Your task to perform on an android device: Open Google Chrome Image 0: 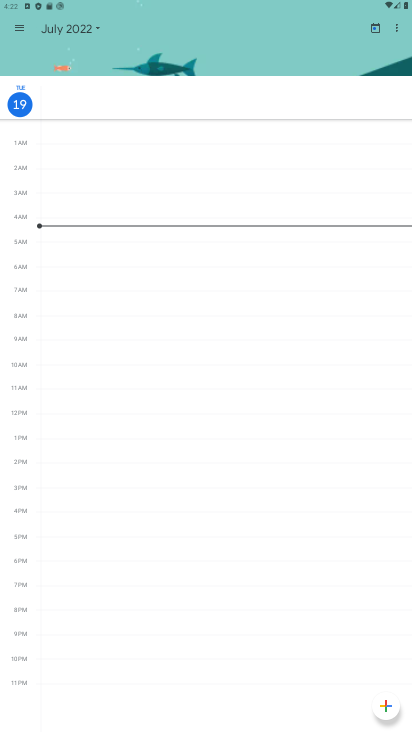
Step 0: press home button
Your task to perform on an android device: Open Google Chrome Image 1: 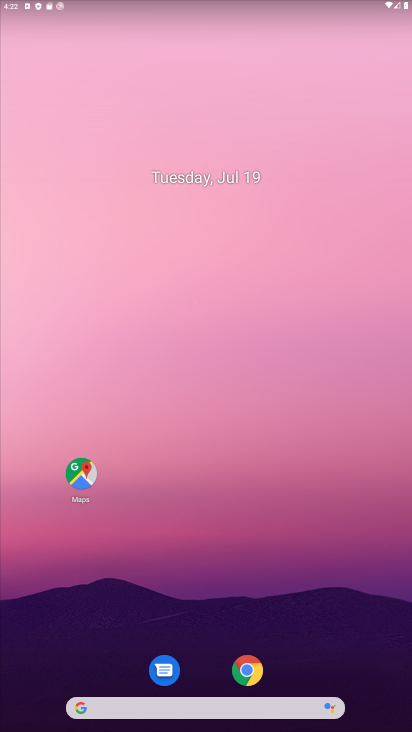
Step 1: drag from (150, 699) to (276, 57)
Your task to perform on an android device: Open Google Chrome Image 2: 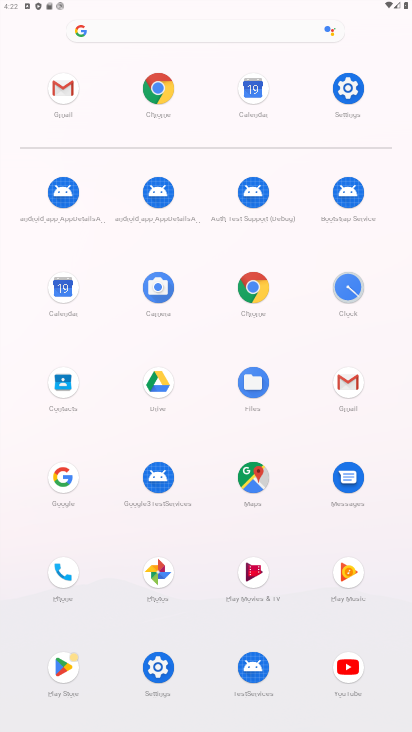
Step 2: click (258, 296)
Your task to perform on an android device: Open Google Chrome Image 3: 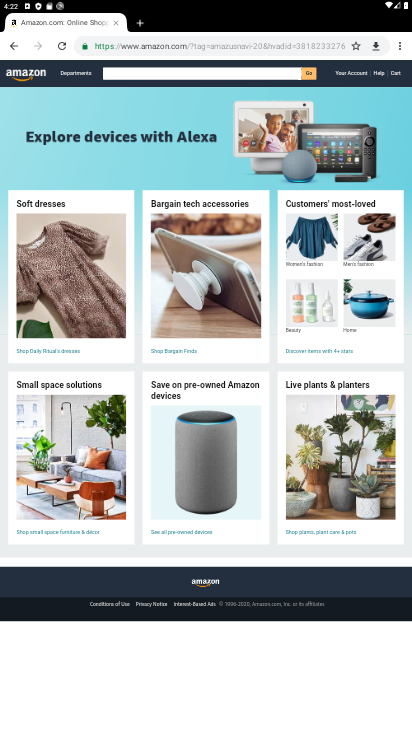
Step 3: click (402, 44)
Your task to perform on an android device: Open Google Chrome Image 4: 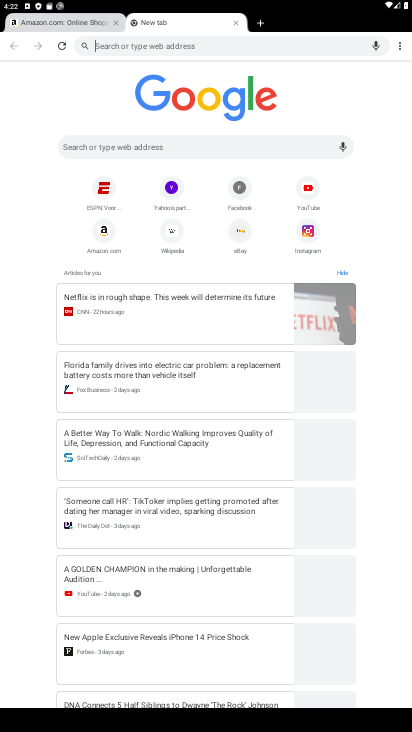
Step 4: click (396, 46)
Your task to perform on an android device: Open Google Chrome Image 5: 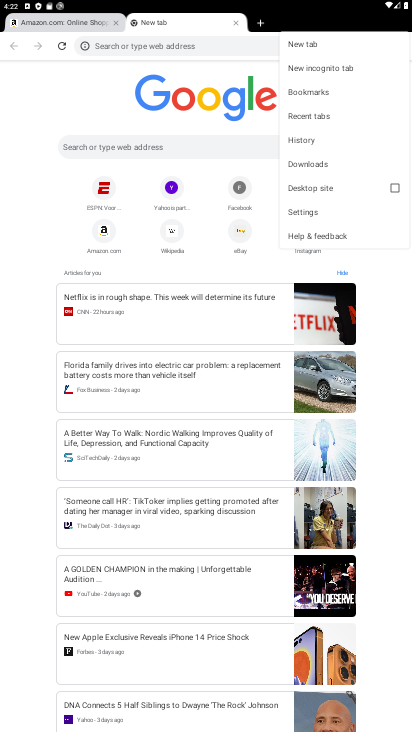
Step 5: click (338, 45)
Your task to perform on an android device: Open Google Chrome Image 6: 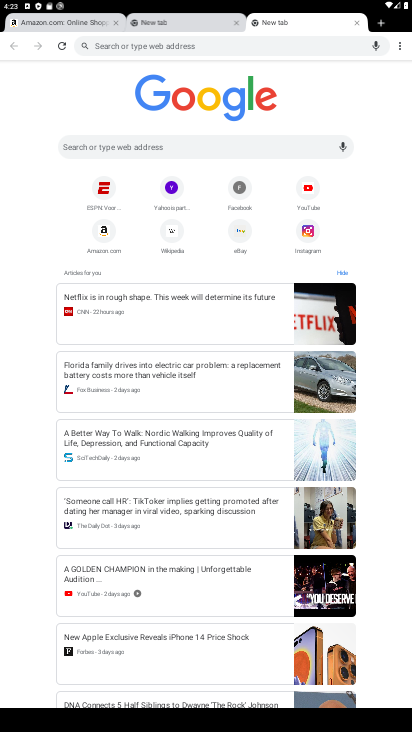
Step 6: task complete